Your task to perform on an android device: add a contact Image 0: 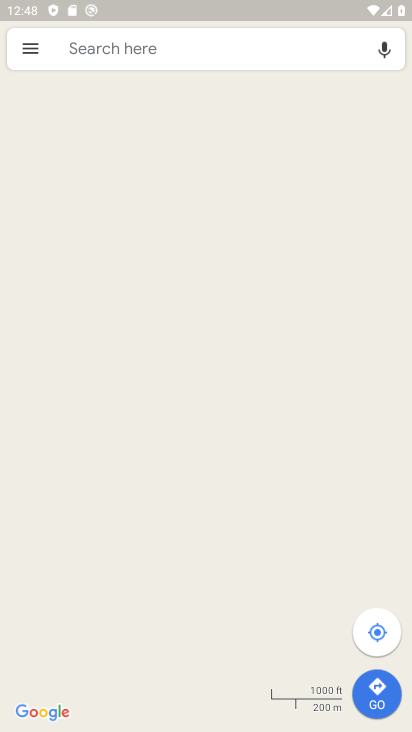
Step 0: press home button
Your task to perform on an android device: add a contact Image 1: 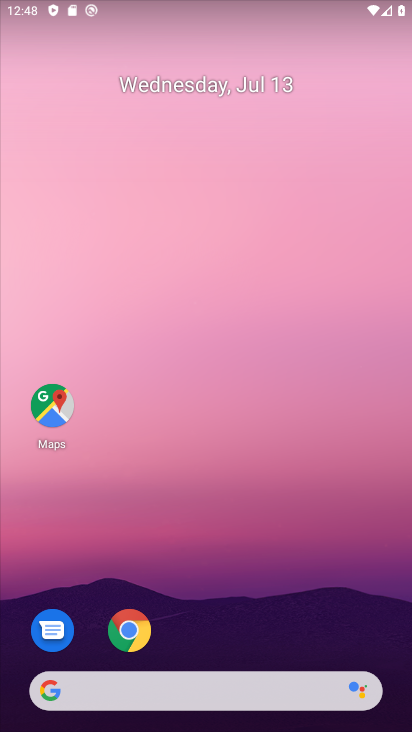
Step 1: drag from (270, 607) to (399, 40)
Your task to perform on an android device: add a contact Image 2: 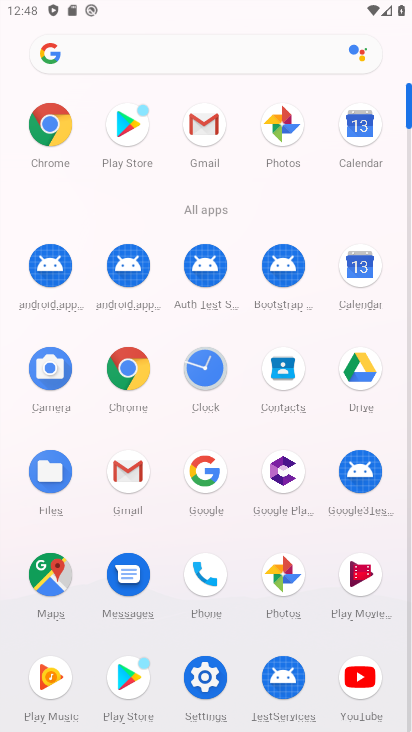
Step 2: click (204, 573)
Your task to perform on an android device: add a contact Image 3: 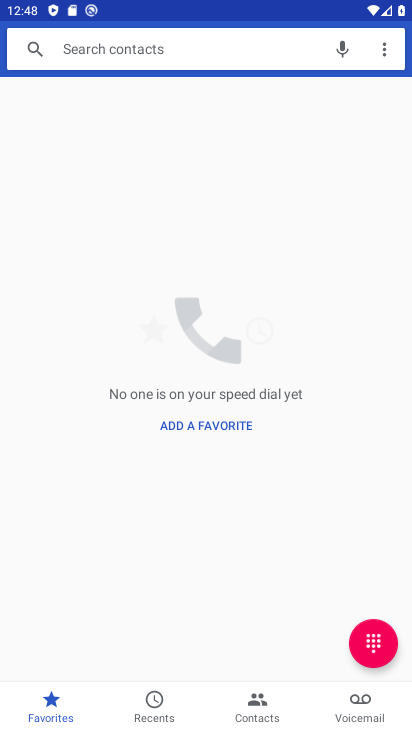
Step 3: click (234, 714)
Your task to perform on an android device: add a contact Image 4: 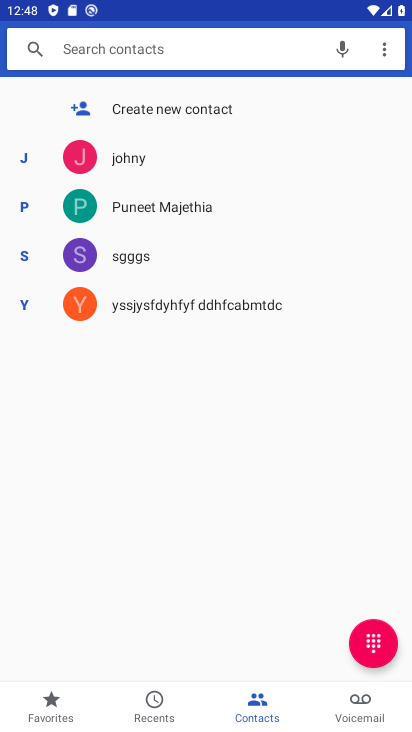
Step 4: click (173, 106)
Your task to perform on an android device: add a contact Image 5: 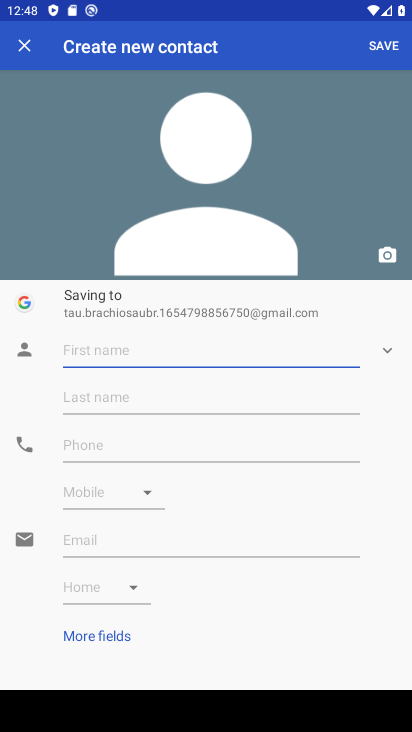
Step 5: type "tyyyy"
Your task to perform on an android device: add a contact Image 6: 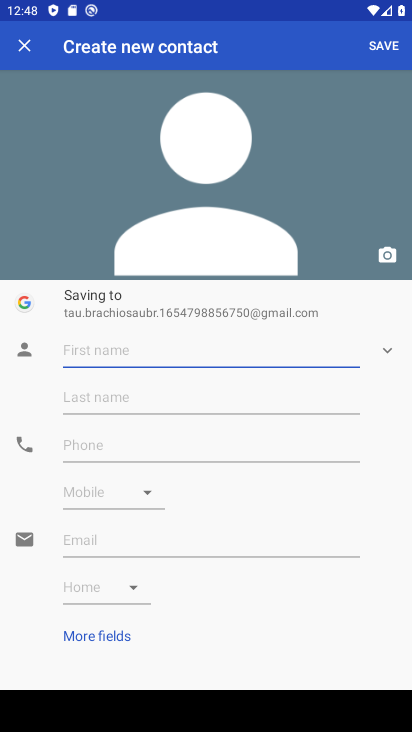
Step 6: click (164, 269)
Your task to perform on an android device: add a contact Image 7: 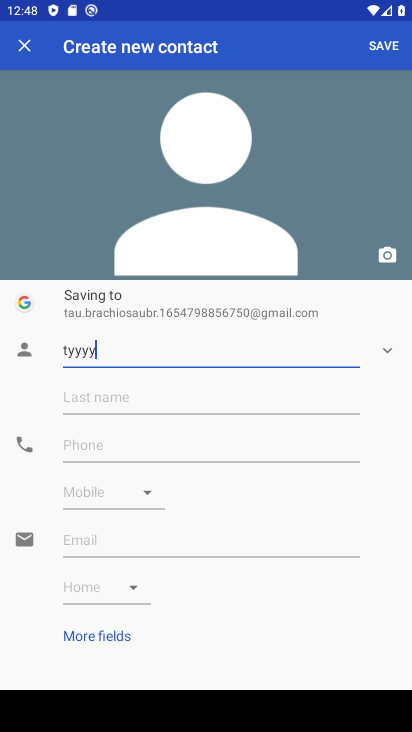
Step 7: click (125, 438)
Your task to perform on an android device: add a contact Image 8: 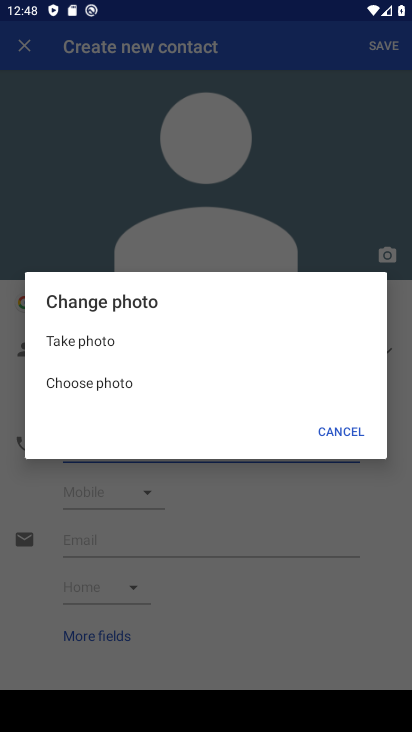
Step 8: click (353, 421)
Your task to perform on an android device: add a contact Image 9: 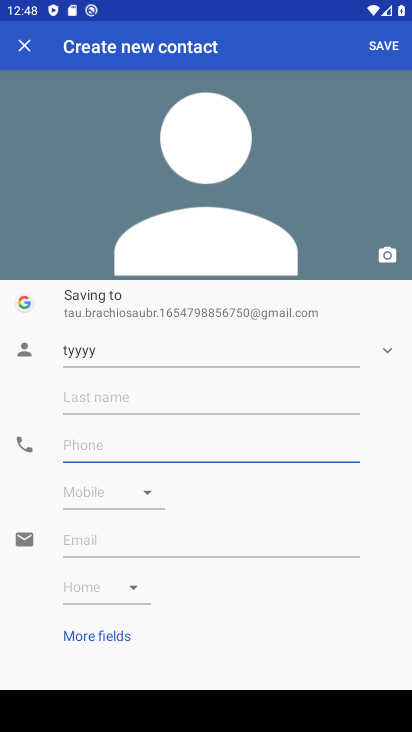
Step 9: type "455553344"
Your task to perform on an android device: add a contact Image 10: 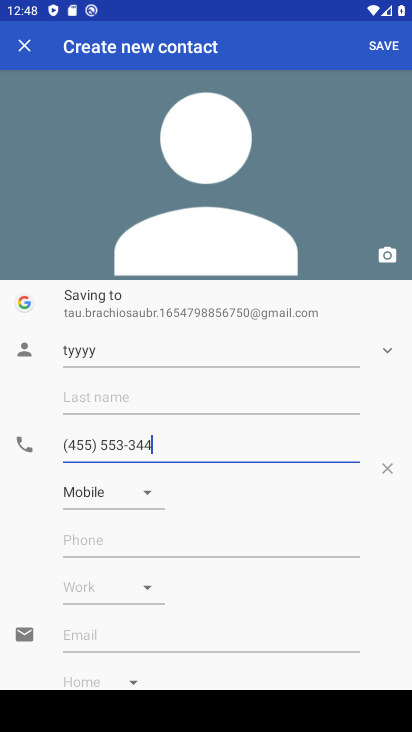
Step 10: click (395, 46)
Your task to perform on an android device: add a contact Image 11: 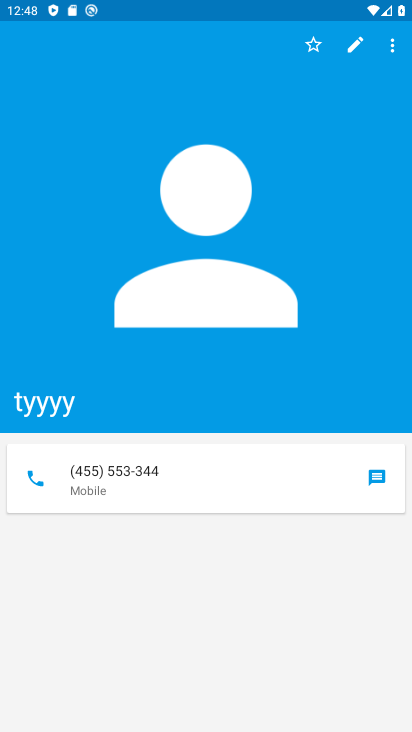
Step 11: task complete